Your task to perform on an android device: empty trash in the gmail app Image 0: 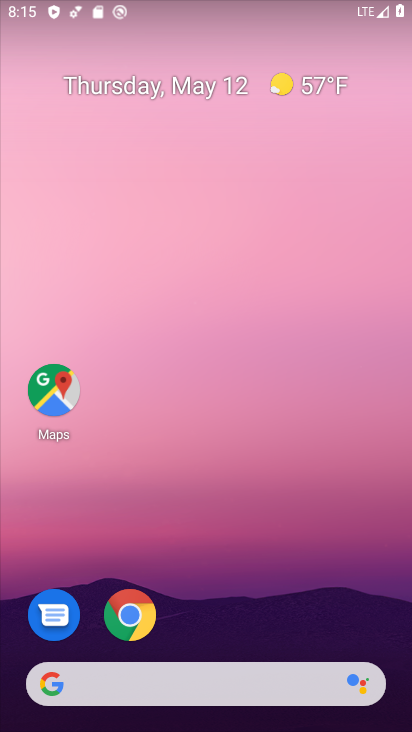
Step 0: drag from (260, 537) to (183, 36)
Your task to perform on an android device: empty trash in the gmail app Image 1: 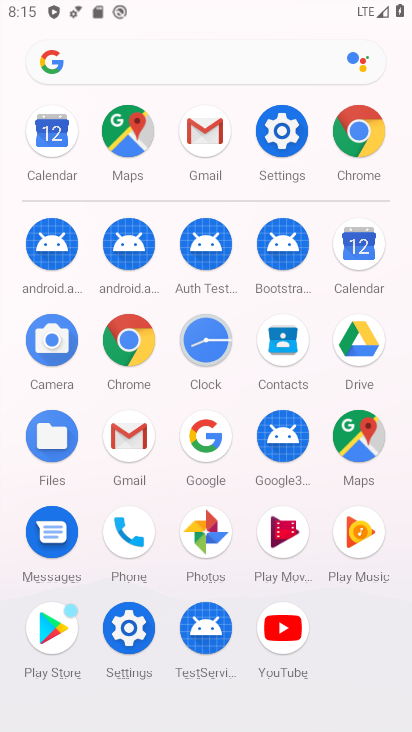
Step 1: click (129, 432)
Your task to perform on an android device: empty trash in the gmail app Image 2: 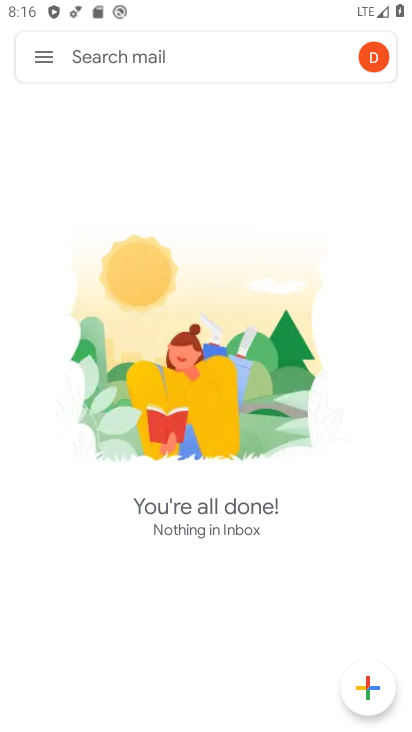
Step 2: click (28, 50)
Your task to perform on an android device: empty trash in the gmail app Image 3: 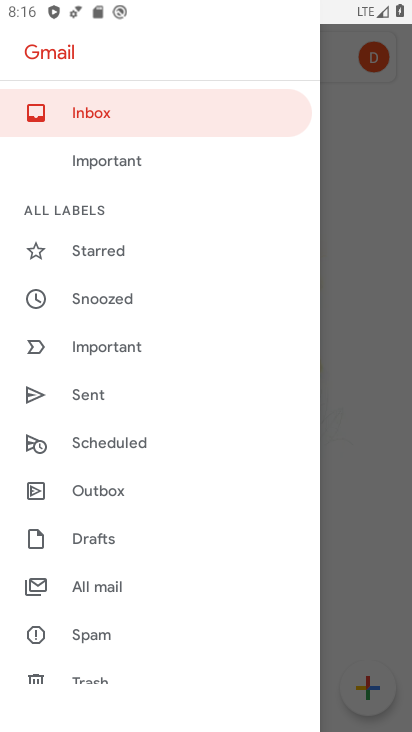
Step 3: drag from (181, 589) to (201, 227)
Your task to perform on an android device: empty trash in the gmail app Image 4: 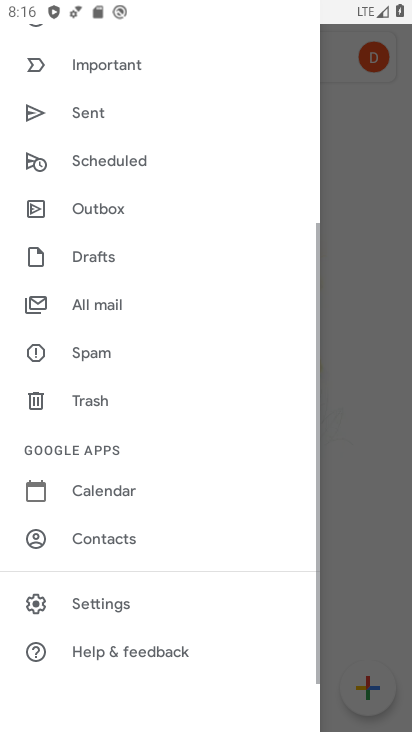
Step 4: click (114, 400)
Your task to perform on an android device: empty trash in the gmail app Image 5: 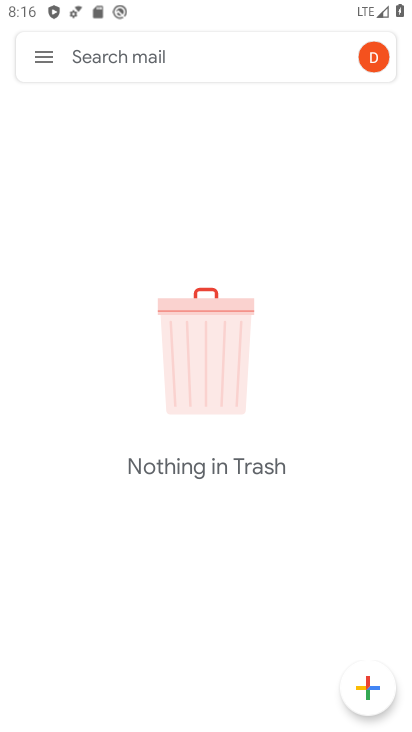
Step 5: task complete